Your task to perform on an android device: turn on the 24-hour format for clock Image 0: 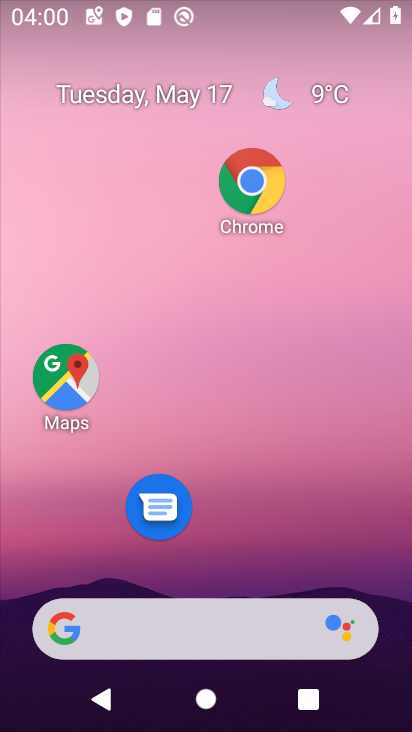
Step 0: drag from (213, 570) to (172, 90)
Your task to perform on an android device: turn on the 24-hour format for clock Image 1: 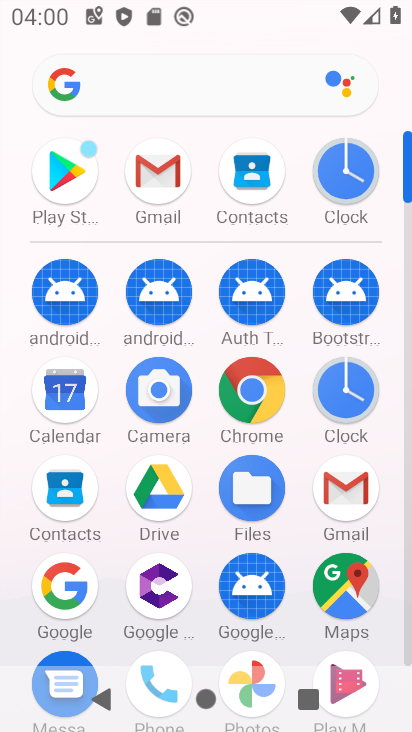
Step 1: click (348, 374)
Your task to perform on an android device: turn on the 24-hour format for clock Image 2: 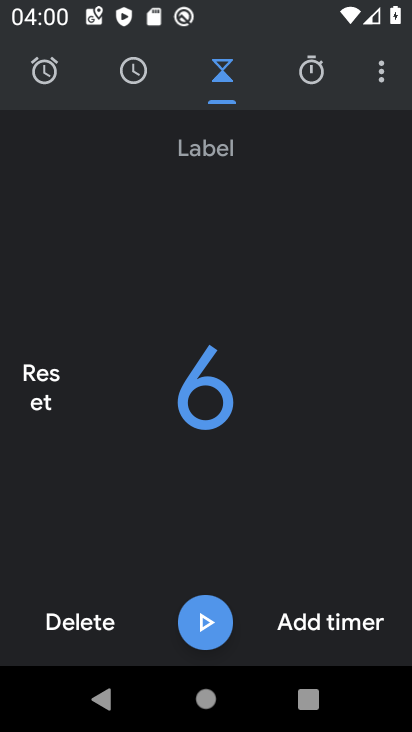
Step 2: click (391, 72)
Your task to perform on an android device: turn on the 24-hour format for clock Image 3: 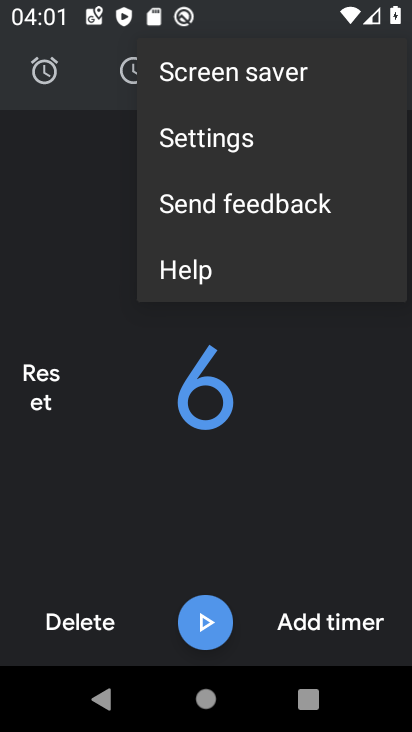
Step 3: click (213, 130)
Your task to perform on an android device: turn on the 24-hour format for clock Image 4: 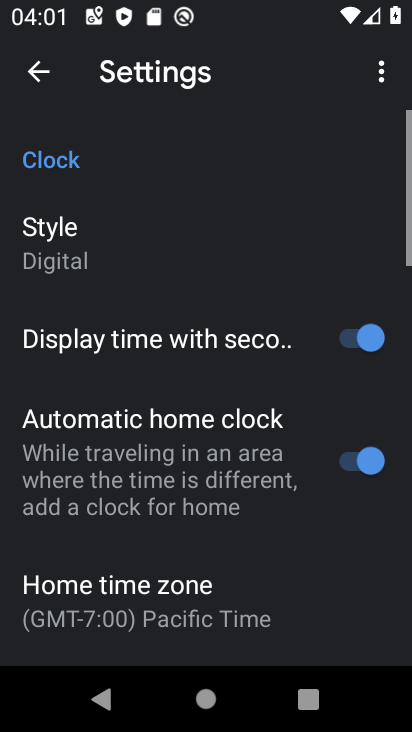
Step 4: drag from (130, 622) to (201, 230)
Your task to perform on an android device: turn on the 24-hour format for clock Image 5: 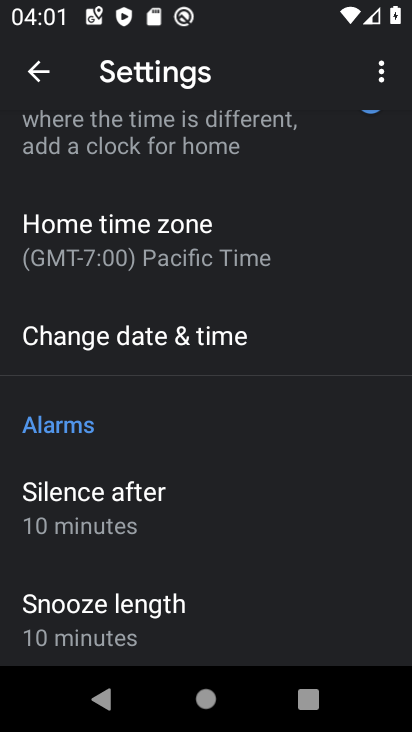
Step 5: drag from (81, 569) to (289, 240)
Your task to perform on an android device: turn on the 24-hour format for clock Image 6: 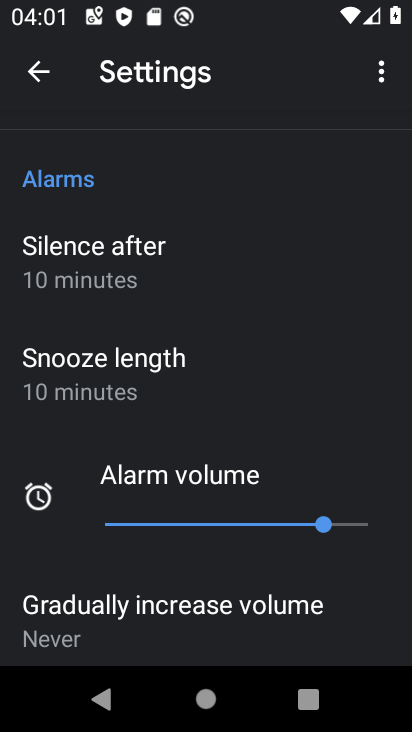
Step 6: drag from (159, 153) to (188, 611)
Your task to perform on an android device: turn on the 24-hour format for clock Image 7: 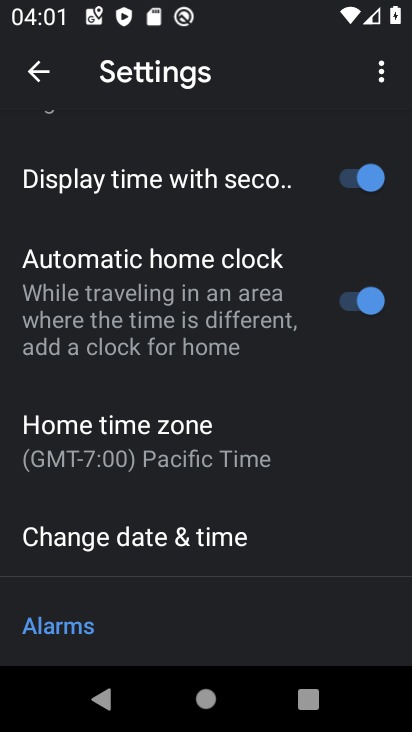
Step 7: click (103, 548)
Your task to perform on an android device: turn on the 24-hour format for clock Image 8: 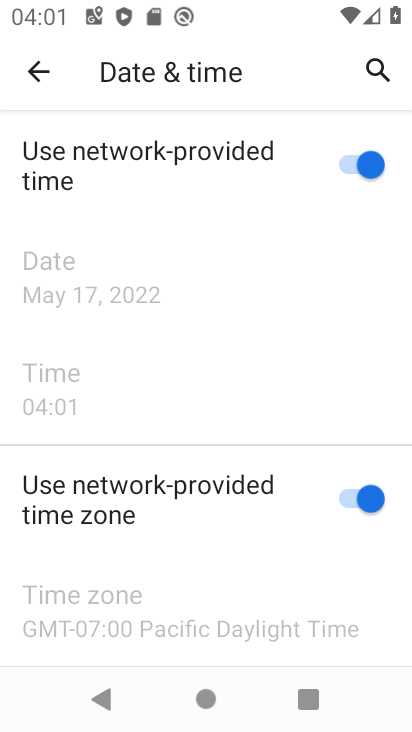
Step 8: click (271, 243)
Your task to perform on an android device: turn on the 24-hour format for clock Image 9: 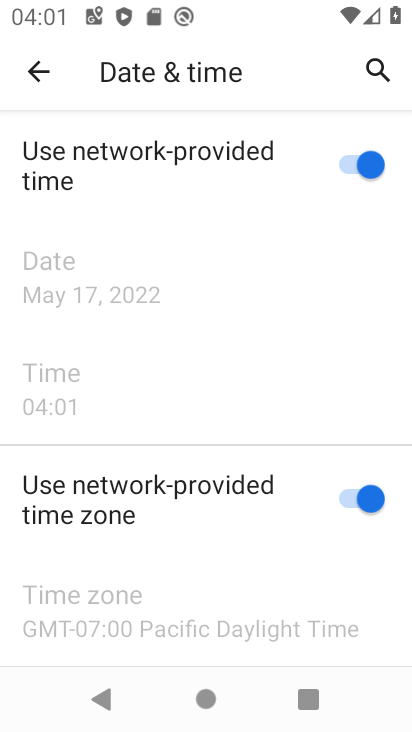
Step 9: click (265, 94)
Your task to perform on an android device: turn on the 24-hour format for clock Image 10: 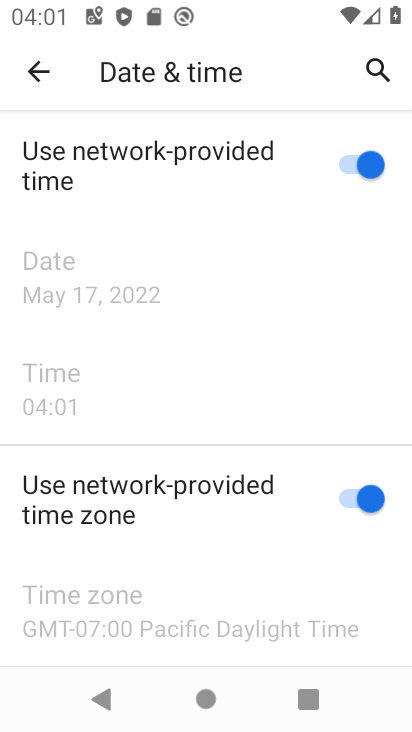
Step 10: click (137, 199)
Your task to perform on an android device: turn on the 24-hour format for clock Image 11: 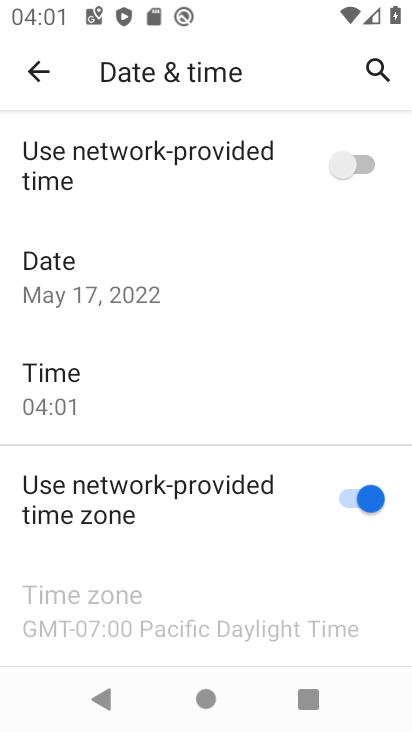
Step 11: task complete